Your task to perform on an android device: find photos in the google photos app Image 0: 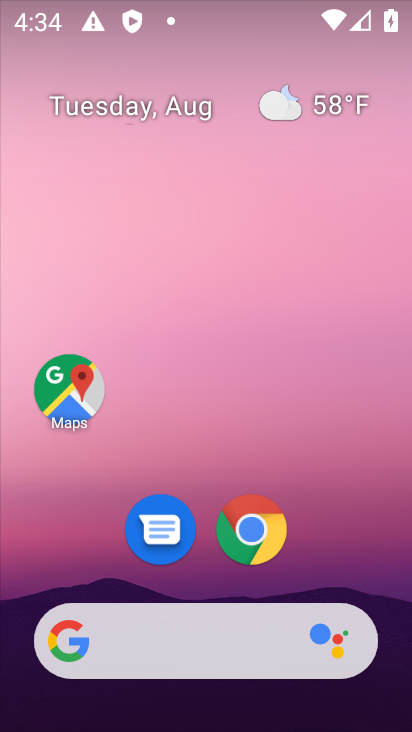
Step 0: drag from (199, 486) to (255, 0)
Your task to perform on an android device: find photos in the google photos app Image 1: 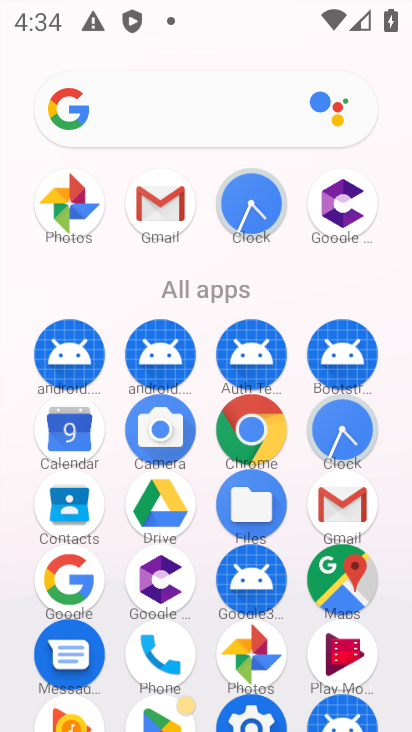
Step 1: click (65, 216)
Your task to perform on an android device: find photos in the google photos app Image 2: 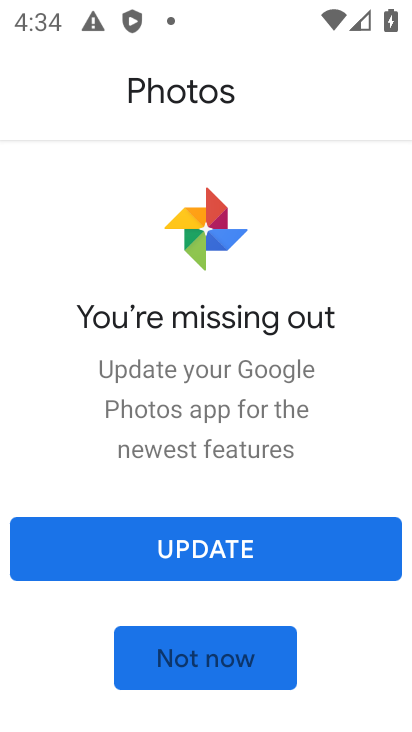
Step 2: click (174, 648)
Your task to perform on an android device: find photos in the google photos app Image 3: 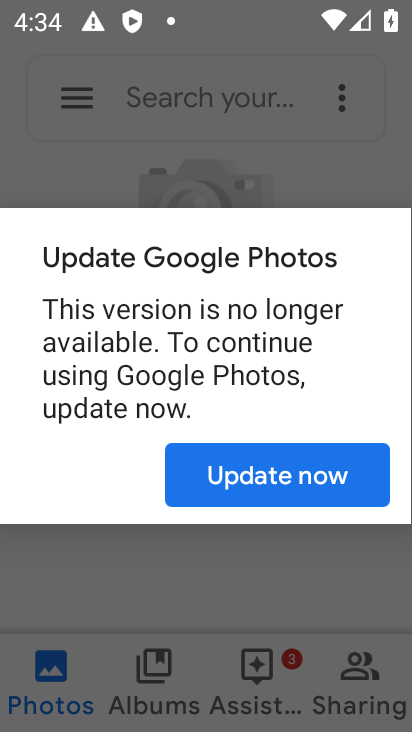
Step 3: click (222, 120)
Your task to perform on an android device: find photos in the google photos app Image 4: 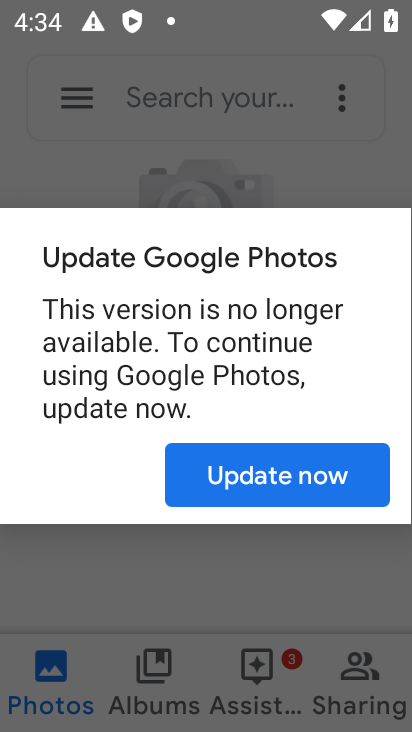
Step 4: click (319, 468)
Your task to perform on an android device: find photos in the google photos app Image 5: 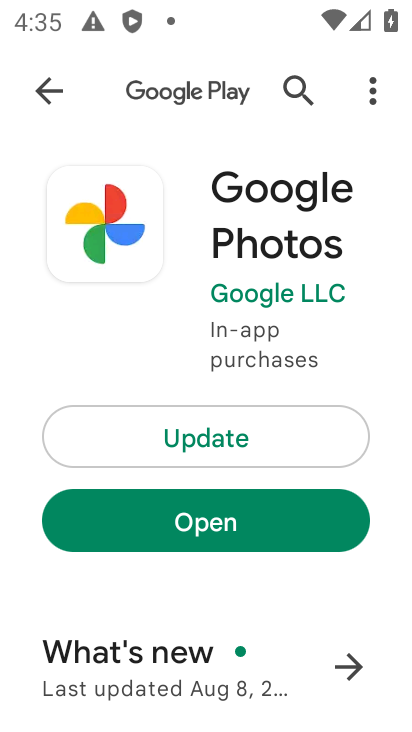
Step 5: click (221, 529)
Your task to perform on an android device: find photos in the google photos app Image 6: 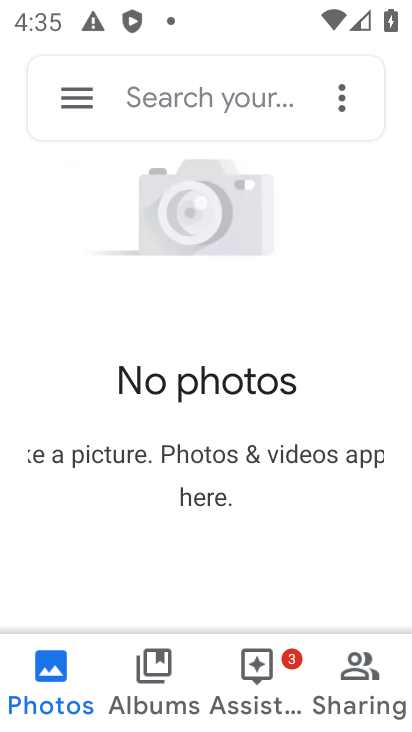
Step 6: click (184, 87)
Your task to perform on an android device: find photos in the google photos app Image 7: 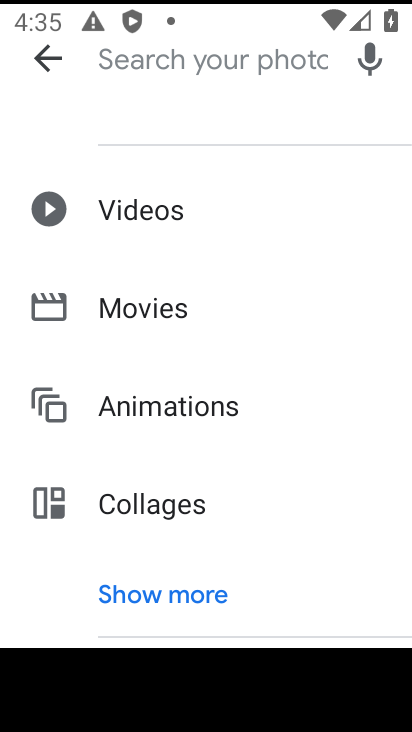
Step 7: type "aa"
Your task to perform on an android device: find photos in the google photos app Image 8: 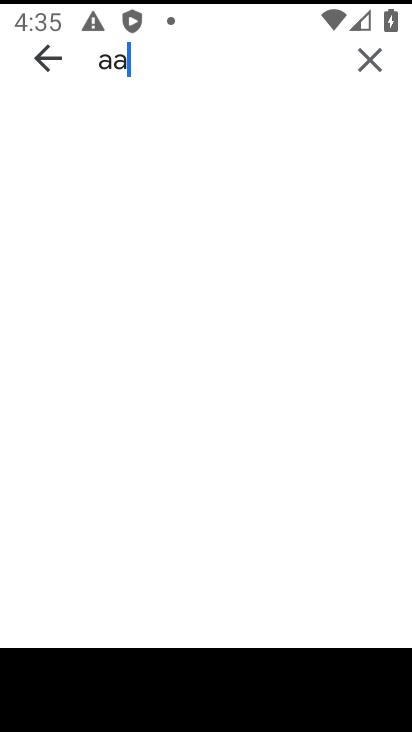
Step 8: task complete